Your task to perform on an android device: Open sound settings Image 0: 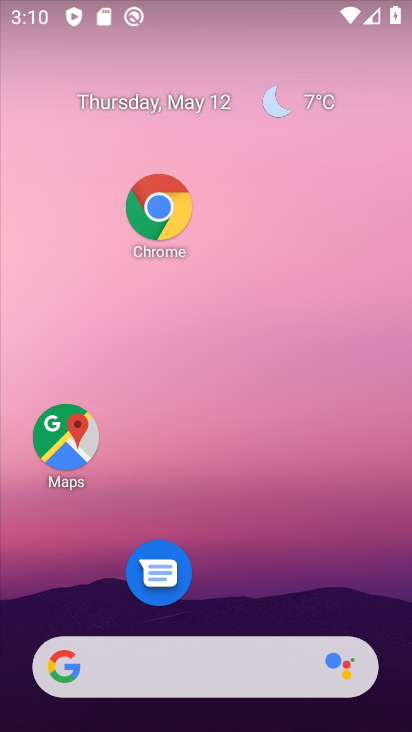
Step 0: drag from (263, 554) to (323, 110)
Your task to perform on an android device: Open sound settings Image 1: 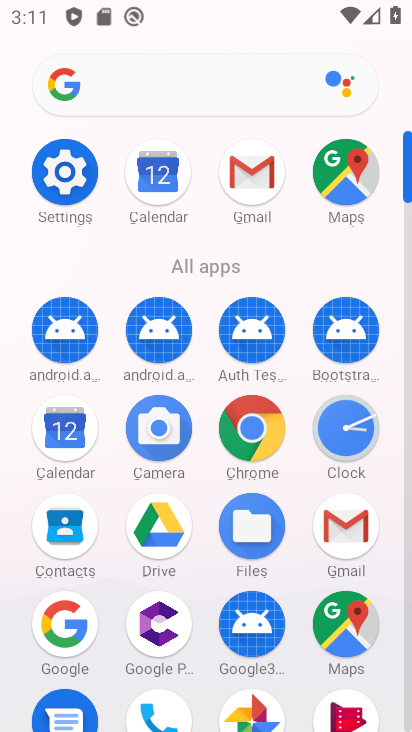
Step 1: press home button
Your task to perform on an android device: Open sound settings Image 2: 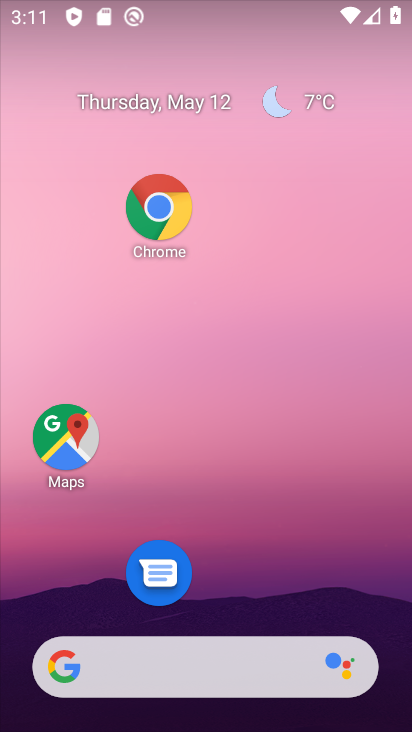
Step 2: drag from (243, 621) to (335, 41)
Your task to perform on an android device: Open sound settings Image 3: 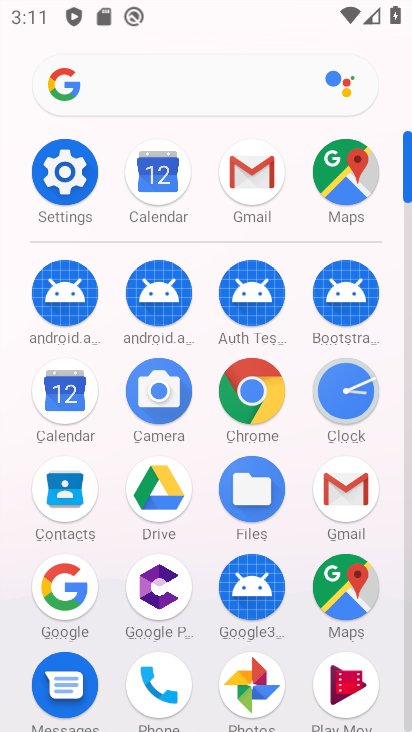
Step 3: click (54, 168)
Your task to perform on an android device: Open sound settings Image 4: 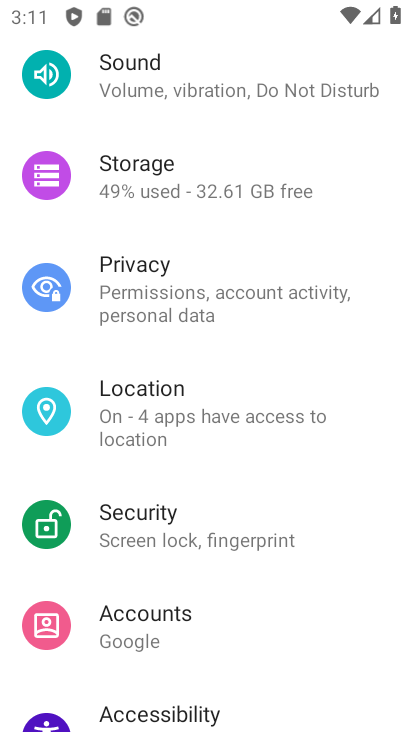
Step 4: drag from (157, 492) to (148, 714)
Your task to perform on an android device: Open sound settings Image 5: 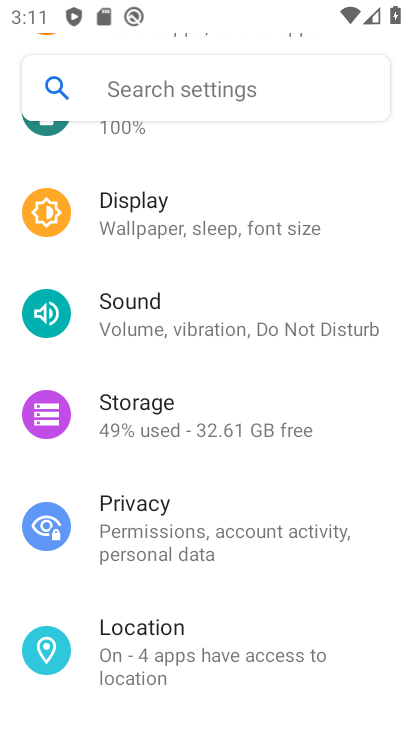
Step 5: click (153, 331)
Your task to perform on an android device: Open sound settings Image 6: 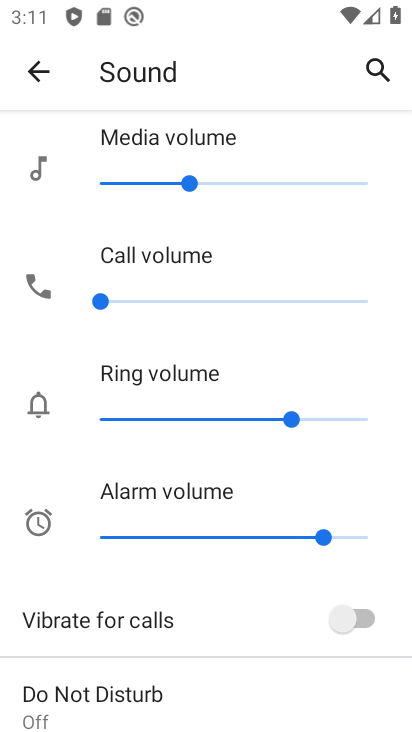
Step 6: task complete